Your task to perform on an android device: turn notification dots on Image 0: 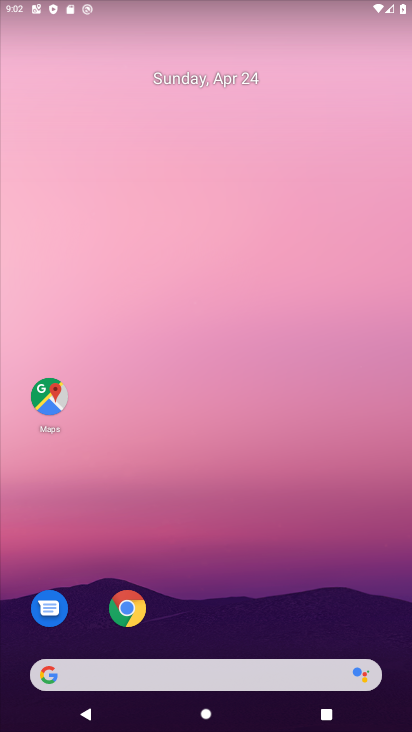
Step 0: drag from (247, 685) to (302, 282)
Your task to perform on an android device: turn notification dots on Image 1: 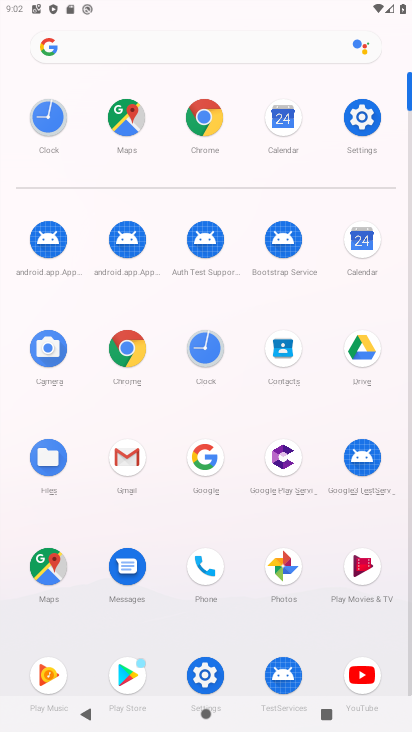
Step 1: click (369, 113)
Your task to perform on an android device: turn notification dots on Image 2: 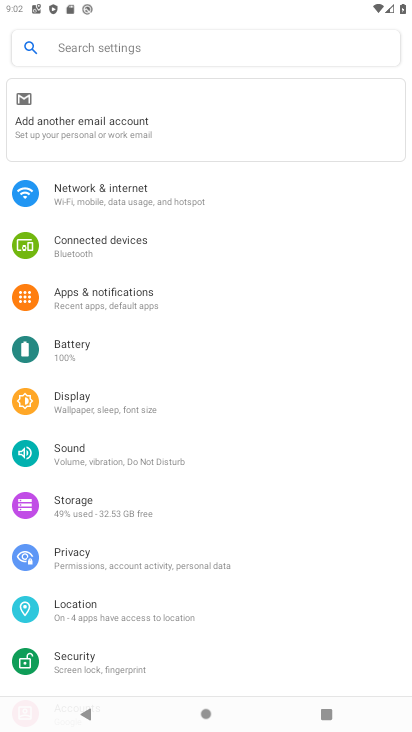
Step 2: click (153, 50)
Your task to perform on an android device: turn notification dots on Image 3: 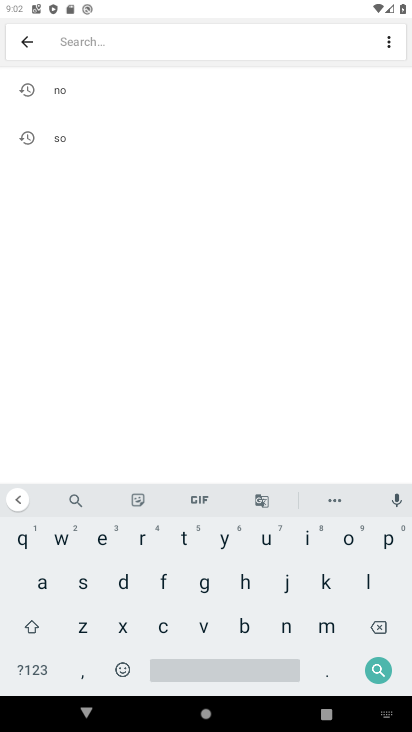
Step 3: click (116, 585)
Your task to perform on an android device: turn notification dots on Image 4: 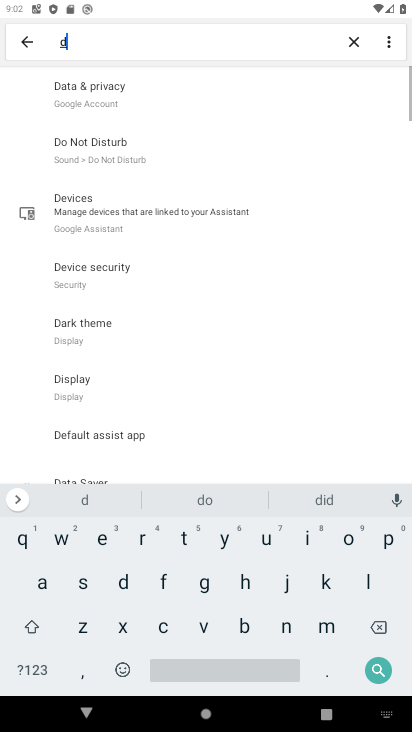
Step 4: click (346, 540)
Your task to perform on an android device: turn notification dots on Image 5: 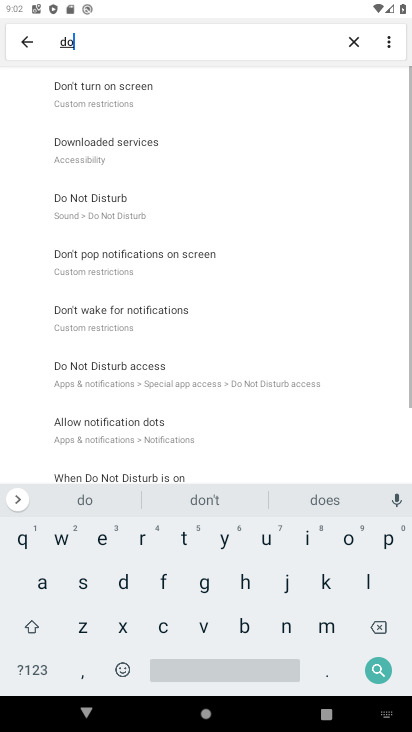
Step 5: click (186, 543)
Your task to perform on an android device: turn notification dots on Image 6: 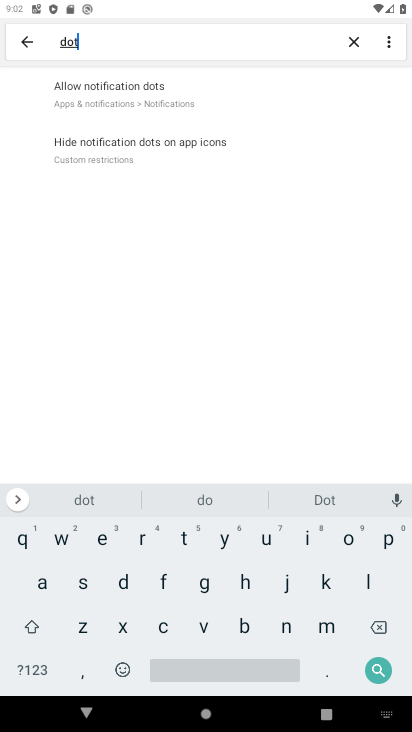
Step 6: click (156, 89)
Your task to perform on an android device: turn notification dots on Image 7: 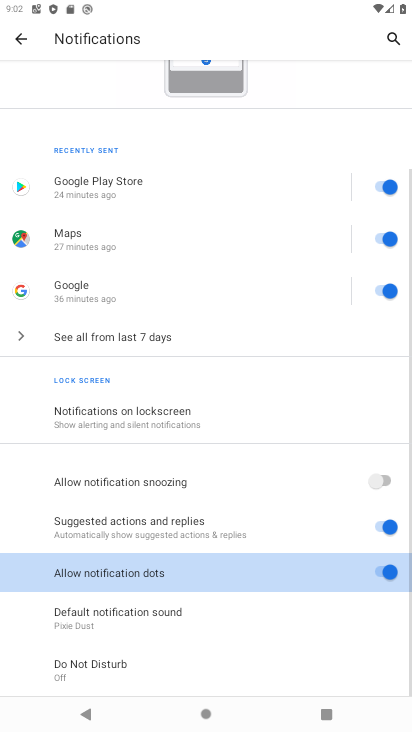
Step 7: click (207, 572)
Your task to perform on an android device: turn notification dots on Image 8: 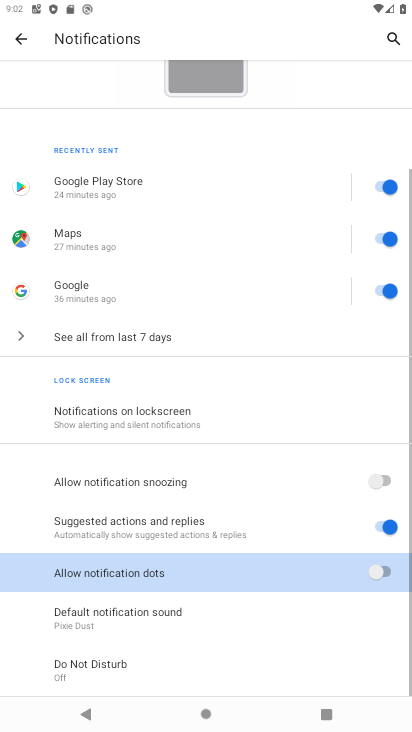
Step 8: click (207, 572)
Your task to perform on an android device: turn notification dots on Image 9: 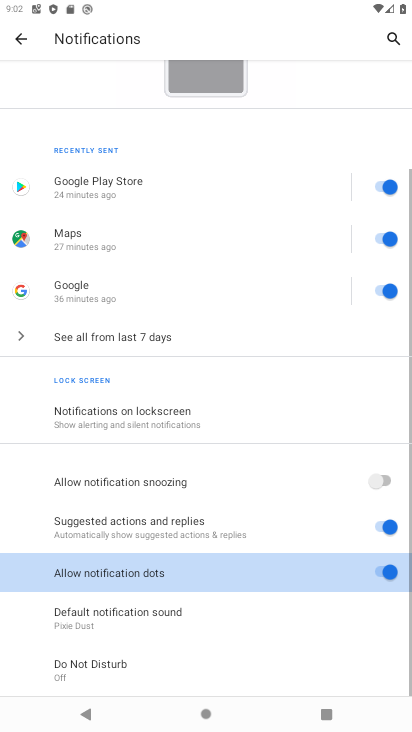
Step 9: task complete